Your task to perform on an android device: Turn off the flashlight Image 0: 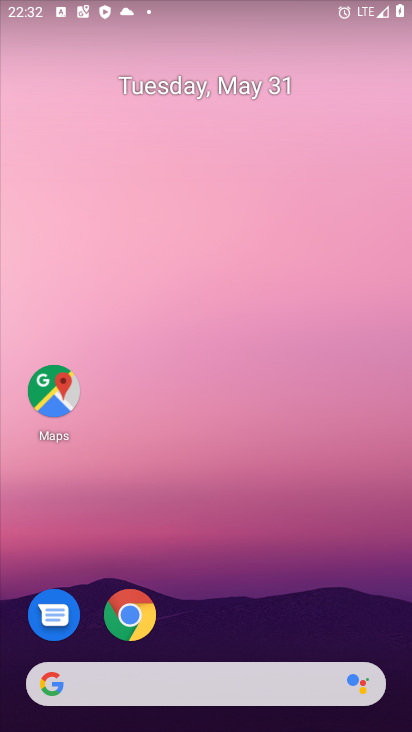
Step 0: drag from (239, 15) to (204, 363)
Your task to perform on an android device: Turn off the flashlight Image 1: 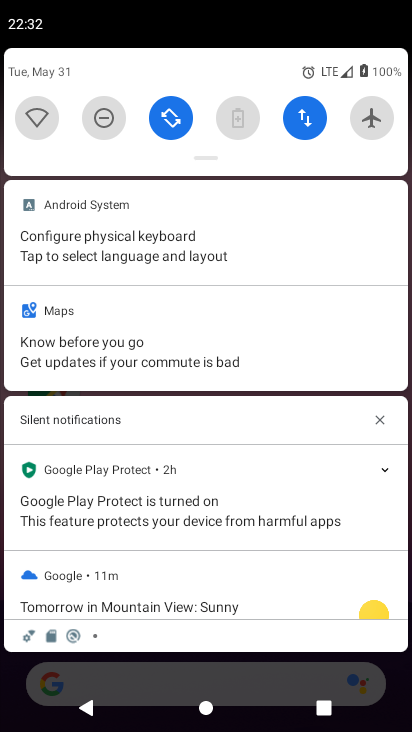
Step 1: drag from (209, 157) to (206, 526)
Your task to perform on an android device: Turn off the flashlight Image 2: 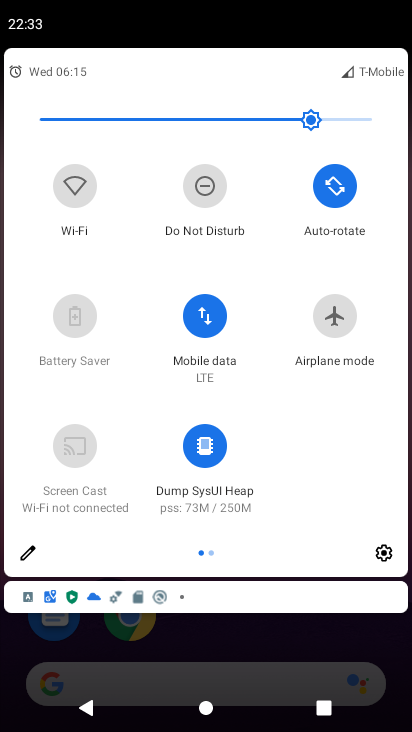
Step 2: drag from (348, 432) to (5, 494)
Your task to perform on an android device: Turn off the flashlight Image 3: 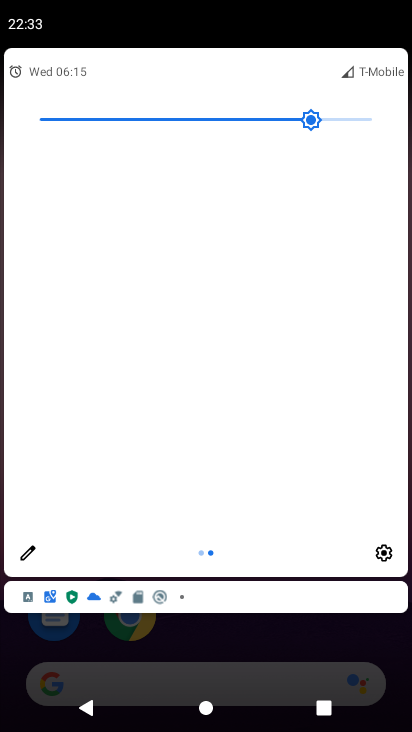
Step 3: click (24, 556)
Your task to perform on an android device: Turn off the flashlight Image 4: 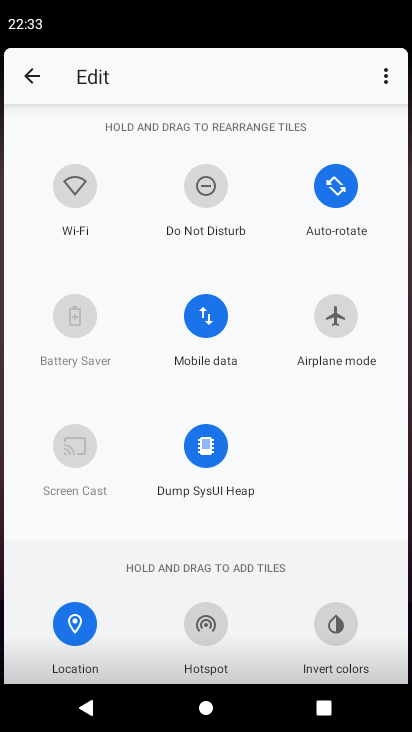
Step 4: task complete